Your task to perform on an android device: What's on my calendar today? Image 0: 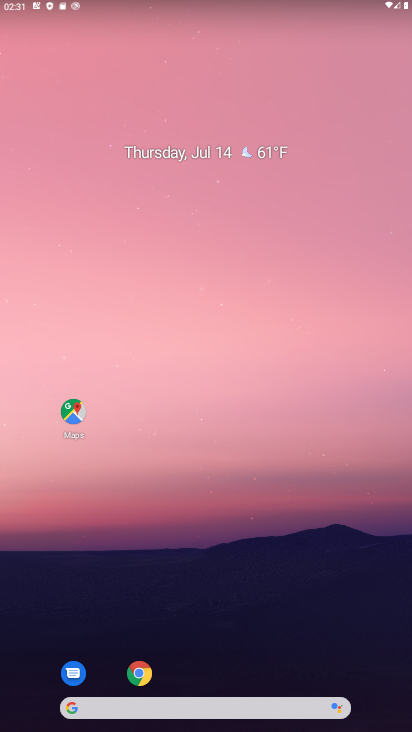
Step 0: drag from (300, 659) to (251, 76)
Your task to perform on an android device: What's on my calendar today? Image 1: 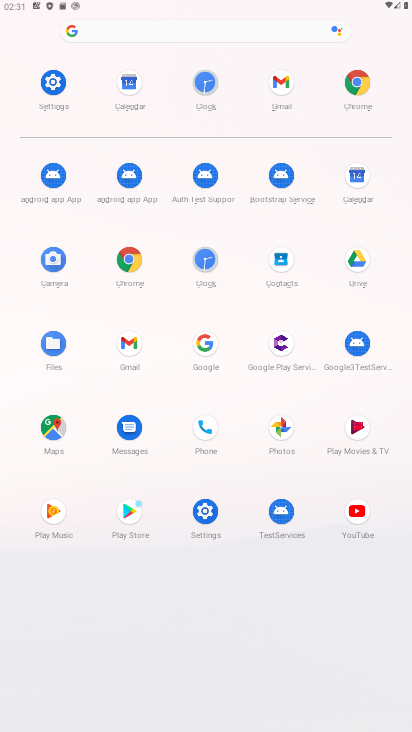
Step 1: click (132, 80)
Your task to perform on an android device: What's on my calendar today? Image 2: 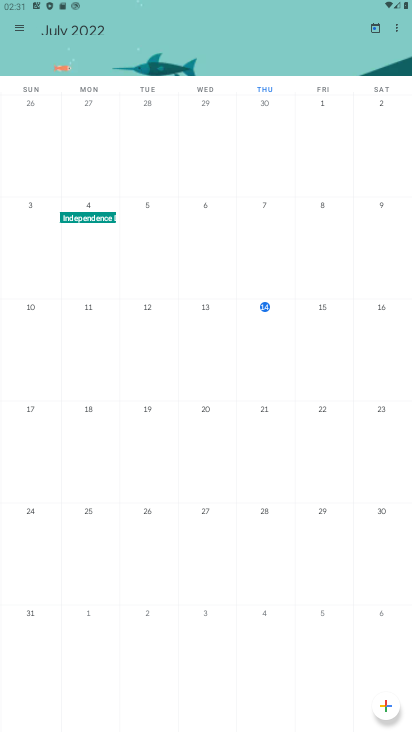
Step 2: task complete